Your task to perform on an android device: Open settings Image 0: 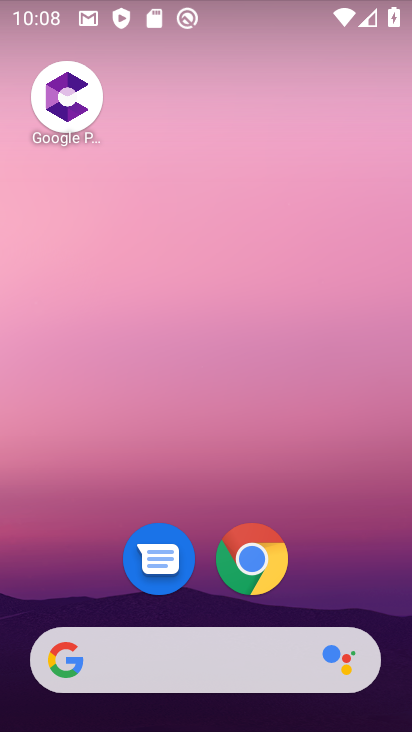
Step 0: press home button
Your task to perform on an android device: Open settings Image 1: 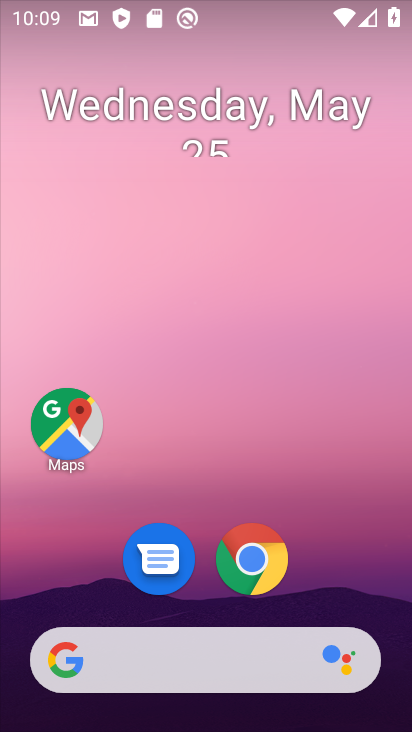
Step 1: drag from (260, 440) to (222, 203)
Your task to perform on an android device: Open settings Image 2: 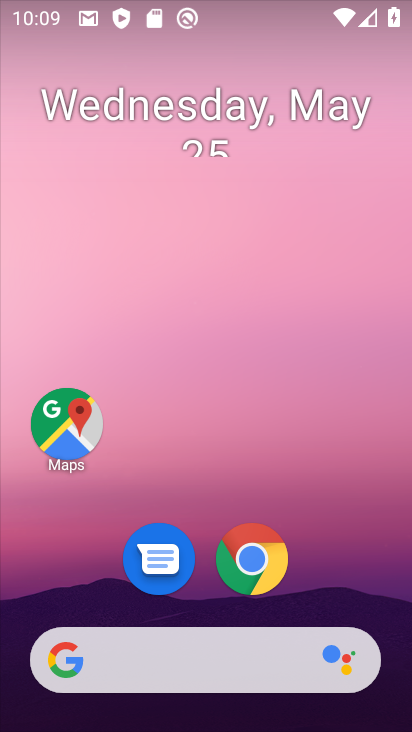
Step 2: drag from (349, 599) to (313, 153)
Your task to perform on an android device: Open settings Image 3: 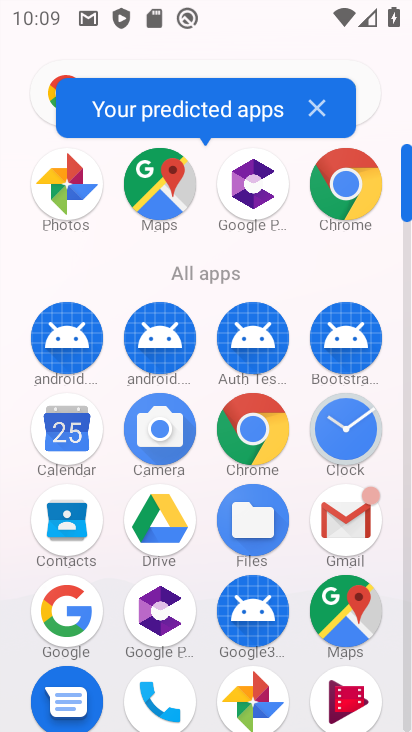
Step 3: drag from (114, 591) to (180, 252)
Your task to perform on an android device: Open settings Image 4: 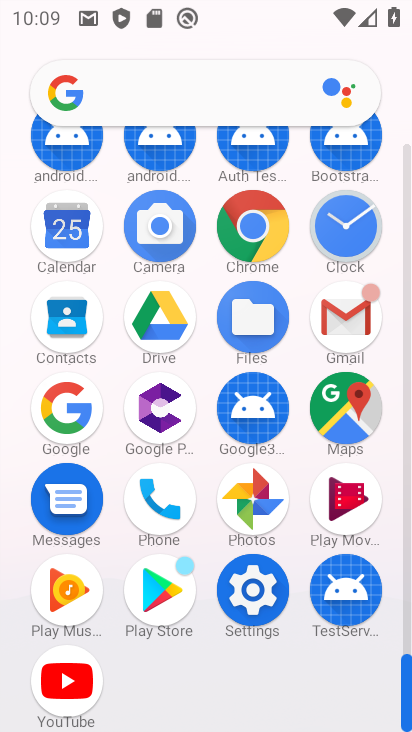
Step 4: click (263, 594)
Your task to perform on an android device: Open settings Image 5: 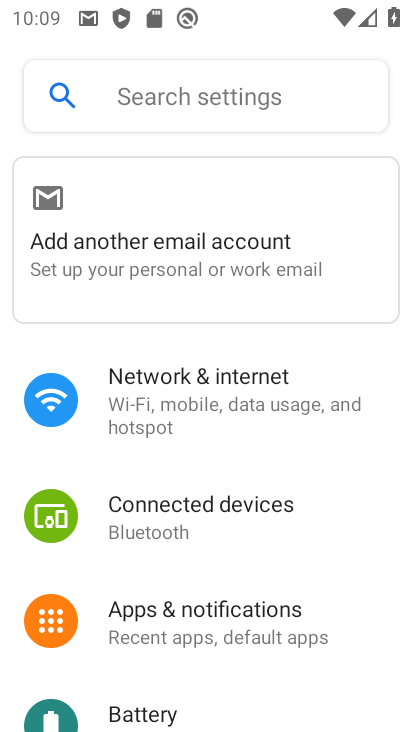
Step 5: task complete